Your task to perform on an android device: toggle wifi Image 0: 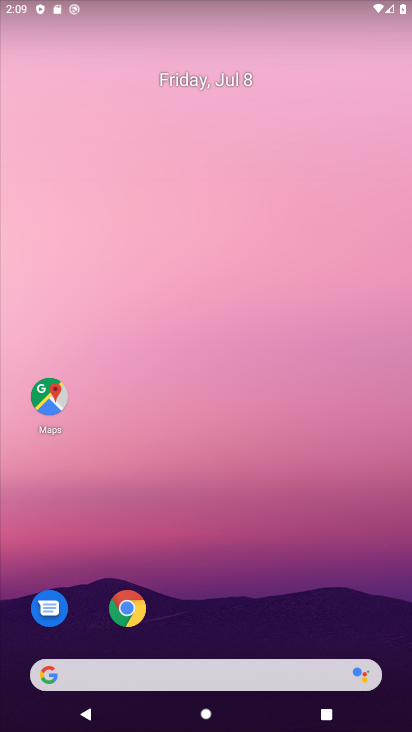
Step 0: drag from (206, 625) to (228, 231)
Your task to perform on an android device: toggle wifi Image 1: 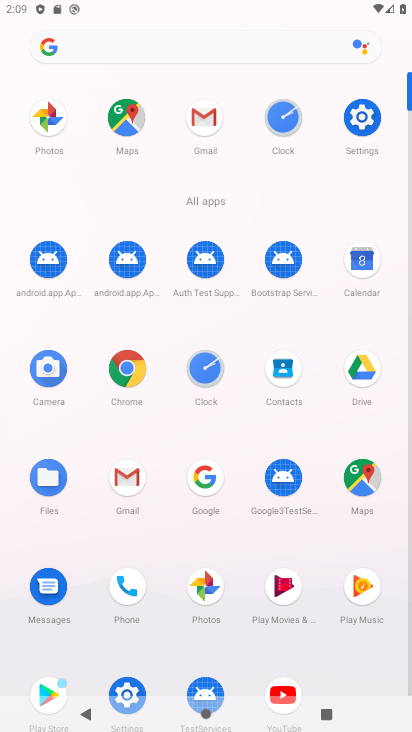
Step 1: click (363, 119)
Your task to perform on an android device: toggle wifi Image 2: 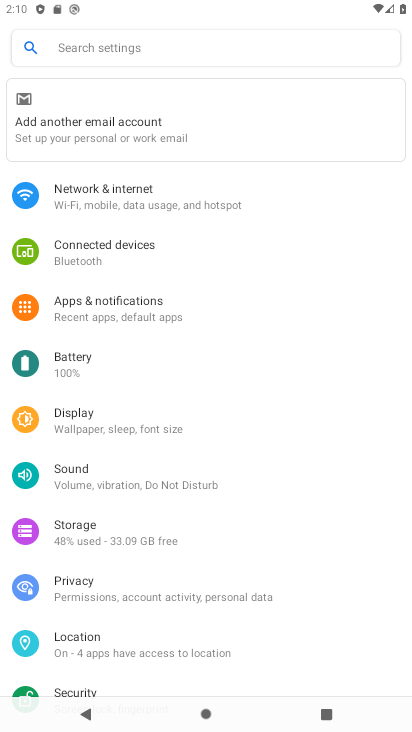
Step 2: click (100, 207)
Your task to perform on an android device: toggle wifi Image 3: 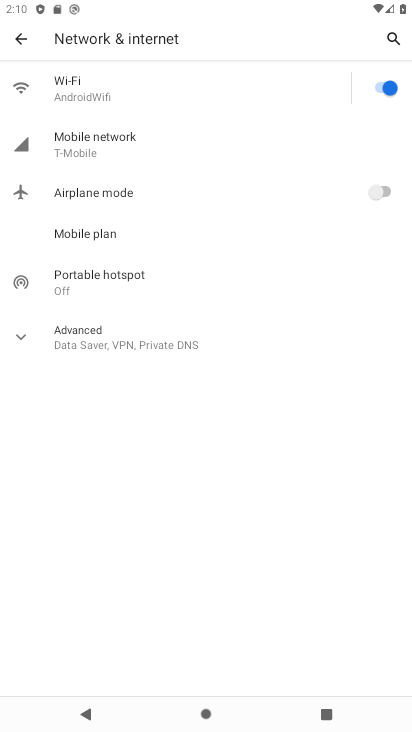
Step 3: click (375, 87)
Your task to perform on an android device: toggle wifi Image 4: 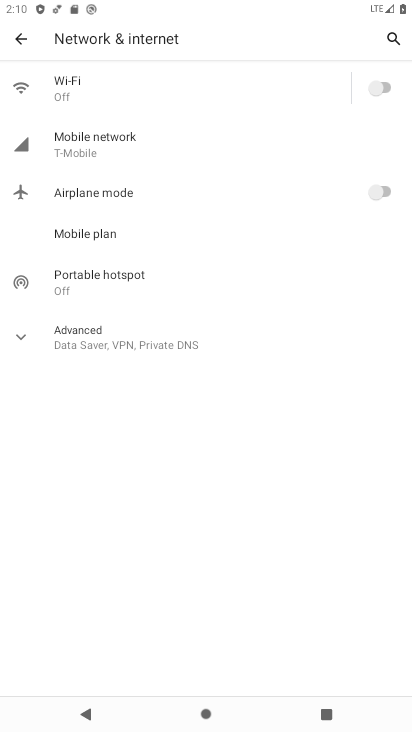
Step 4: task complete